Your task to perform on an android device: Show me productivity apps on the Play Store Image 0: 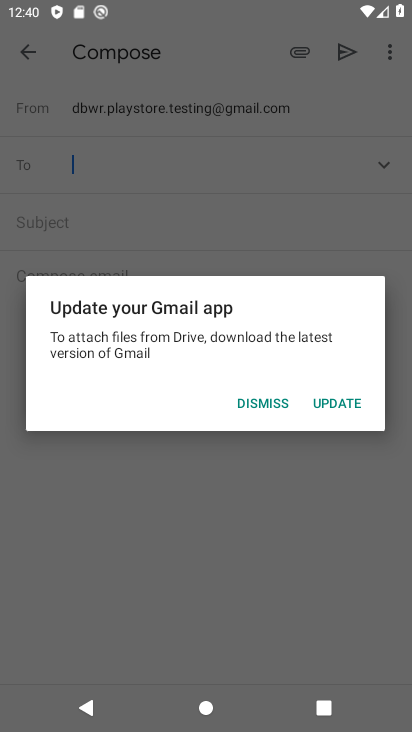
Step 0: press home button
Your task to perform on an android device: Show me productivity apps on the Play Store Image 1: 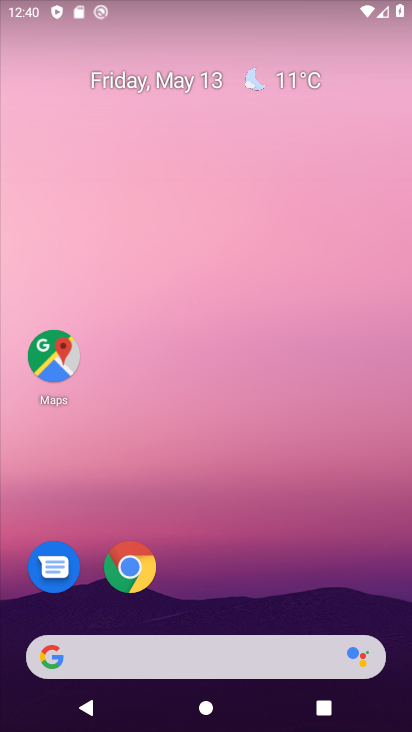
Step 1: drag from (202, 621) to (212, 2)
Your task to perform on an android device: Show me productivity apps on the Play Store Image 2: 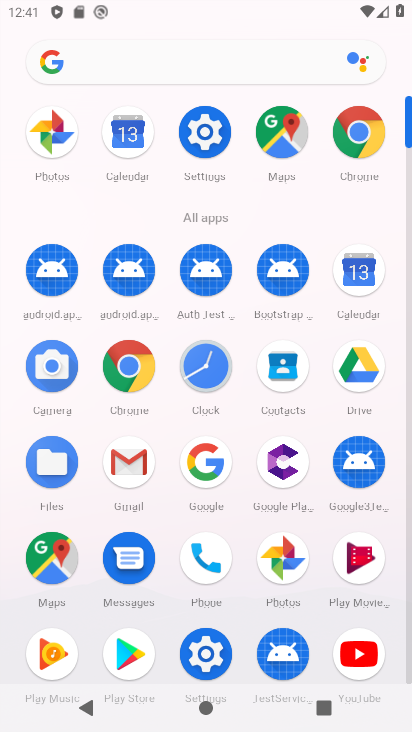
Step 2: click (125, 667)
Your task to perform on an android device: Show me productivity apps on the Play Store Image 3: 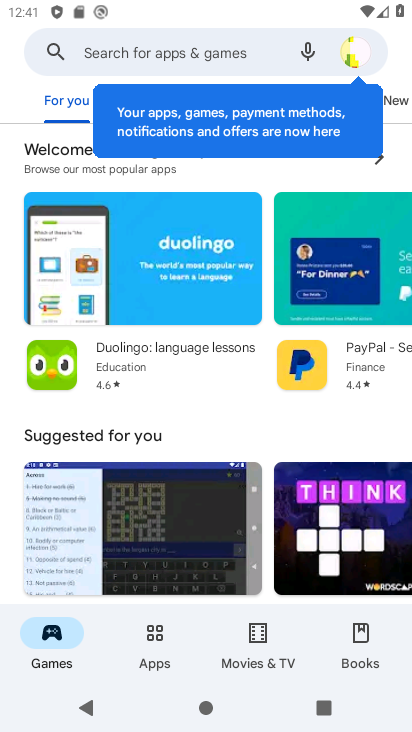
Step 3: click (153, 640)
Your task to perform on an android device: Show me productivity apps on the Play Store Image 4: 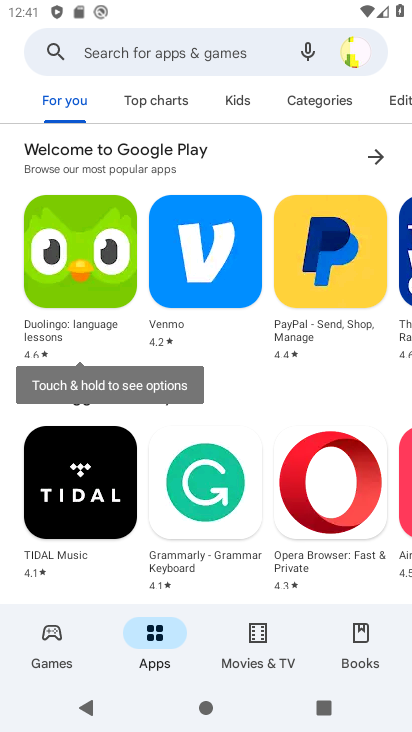
Step 4: drag from (357, 99) to (174, 91)
Your task to perform on an android device: Show me productivity apps on the Play Store Image 5: 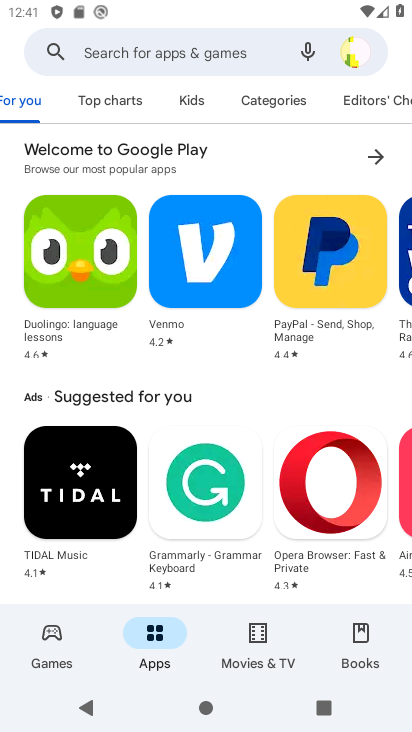
Step 5: drag from (306, 101) to (97, 101)
Your task to perform on an android device: Show me productivity apps on the Play Store Image 6: 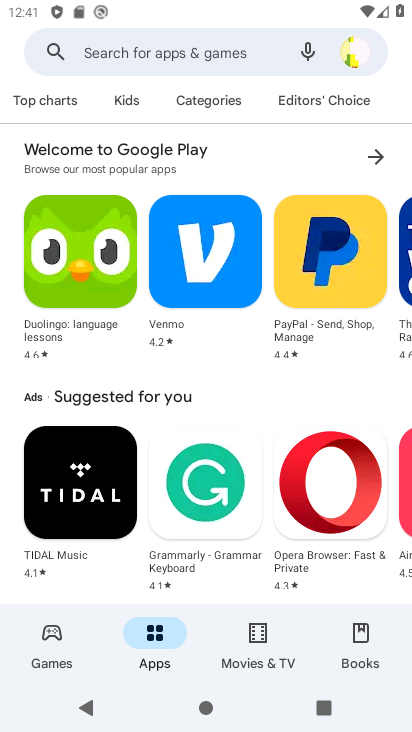
Step 6: drag from (314, 107) to (57, 107)
Your task to perform on an android device: Show me productivity apps on the Play Store Image 7: 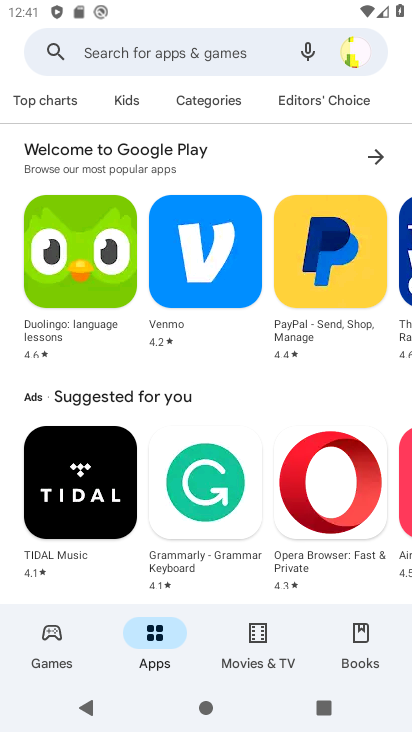
Step 7: click (214, 99)
Your task to perform on an android device: Show me productivity apps on the Play Store Image 8: 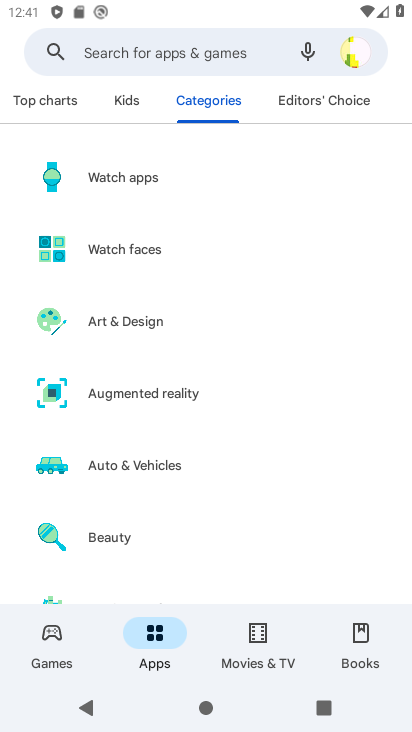
Step 8: drag from (176, 491) to (172, 187)
Your task to perform on an android device: Show me productivity apps on the Play Store Image 9: 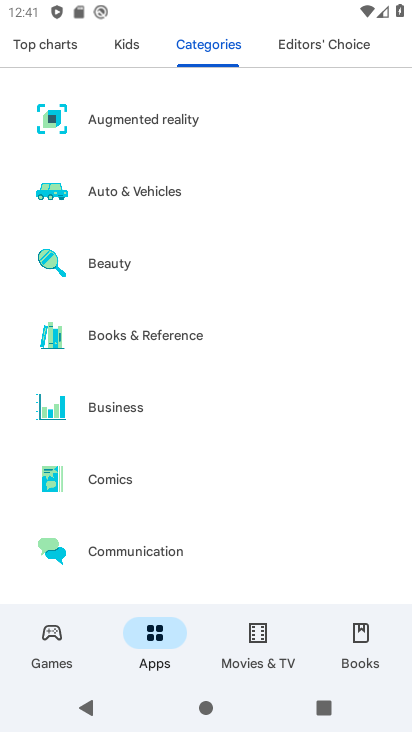
Step 9: drag from (163, 495) to (164, 260)
Your task to perform on an android device: Show me productivity apps on the Play Store Image 10: 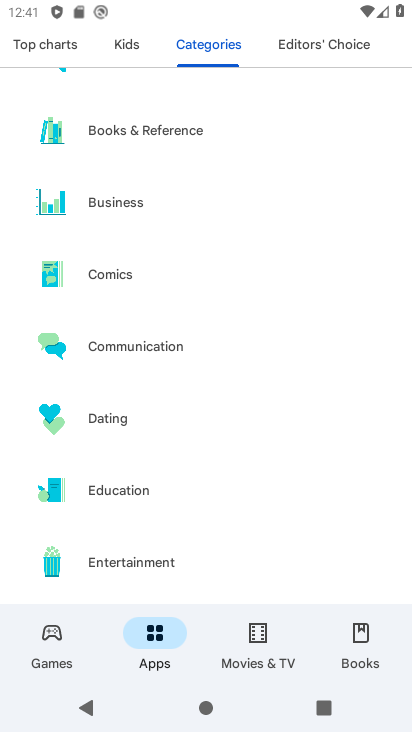
Step 10: drag from (210, 526) to (208, 191)
Your task to perform on an android device: Show me productivity apps on the Play Store Image 11: 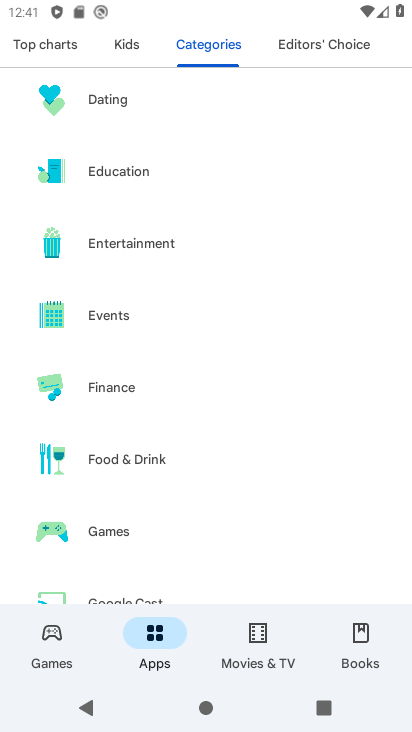
Step 11: drag from (191, 511) to (195, 198)
Your task to perform on an android device: Show me productivity apps on the Play Store Image 12: 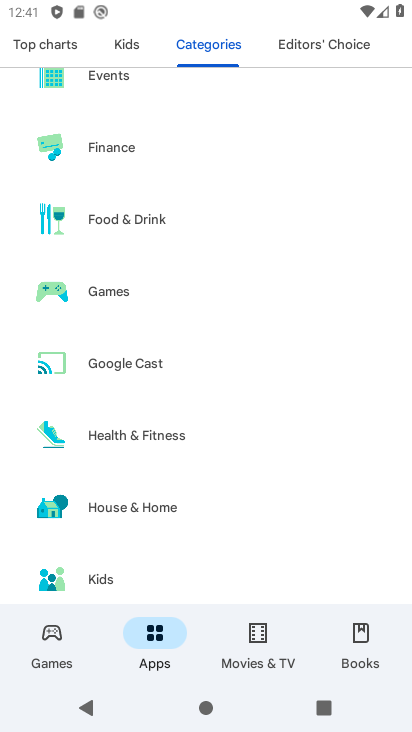
Step 12: drag from (160, 483) to (158, 292)
Your task to perform on an android device: Show me productivity apps on the Play Store Image 13: 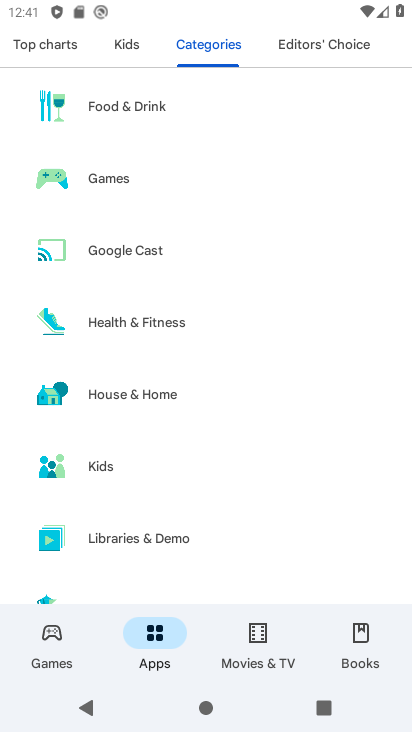
Step 13: drag from (183, 555) to (188, 182)
Your task to perform on an android device: Show me productivity apps on the Play Store Image 14: 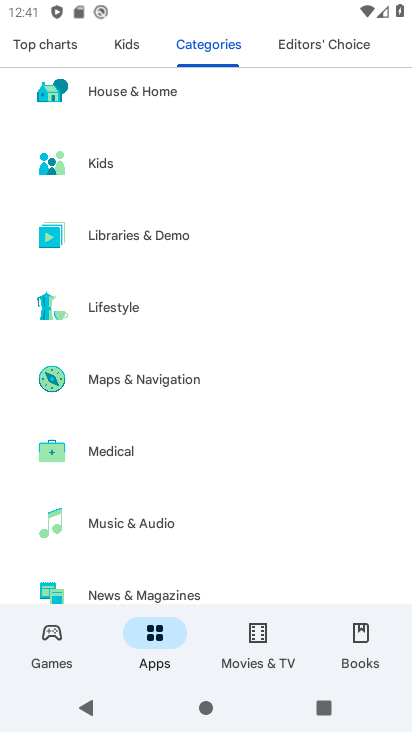
Step 14: drag from (181, 556) to (166, 214)
Your task to perform on an android device: Show me productivity apps on the Play Store Image 15: 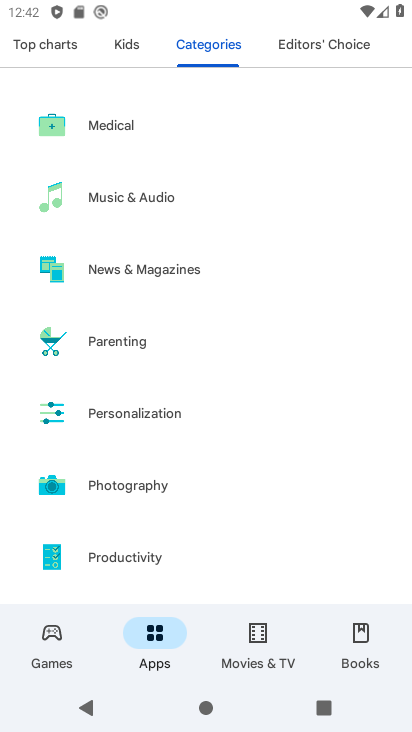
Step 15: click (125, 556)
Your task to perform on an android device: Show me productivity apps on the Play Store Image 16: 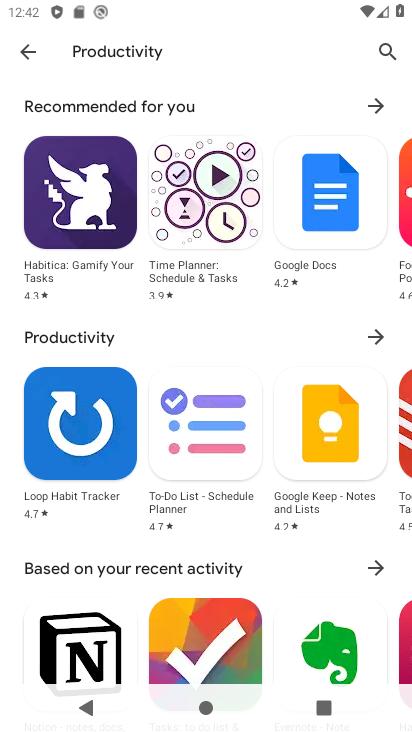
Step 16: task complete